Your task to perform on an android device: Go to notification settings Image 0: 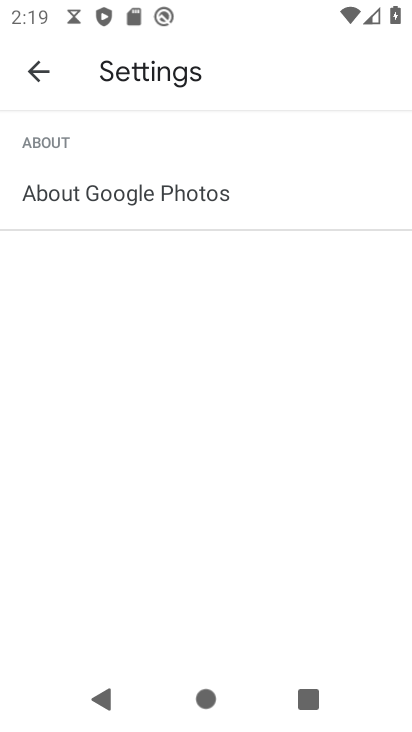
Step 0: press home button
Your task to perform on an android device: Go to notification settings Image 1: 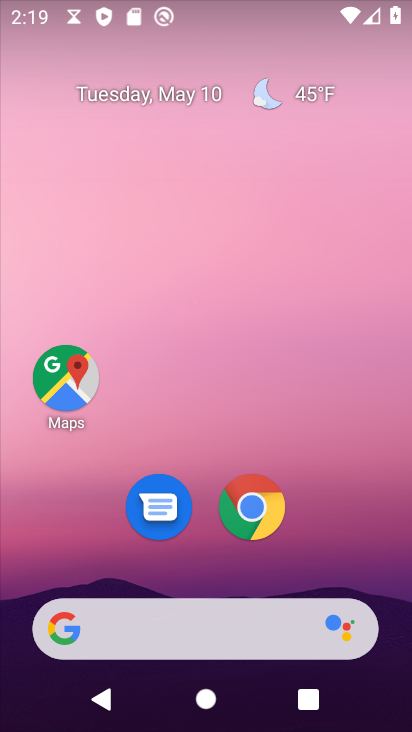
Step 1: drag from (317, 544) to (108, 179)
Your task to perform on an android device: Go to notification settings Image 2: 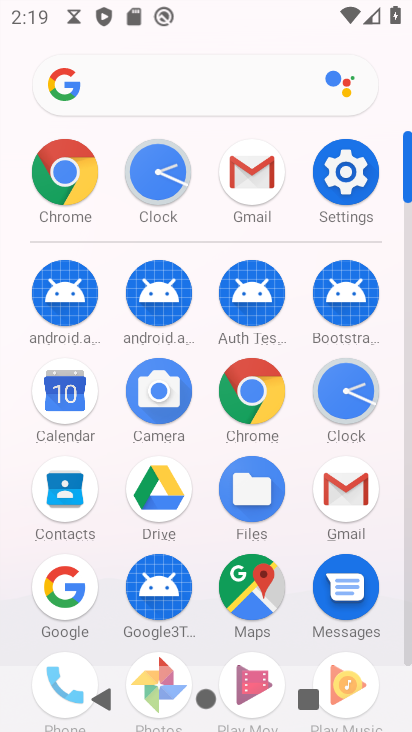
Step 2: click (342, 180)
Your task to perform on an android device: Go to notification settings Image 3: 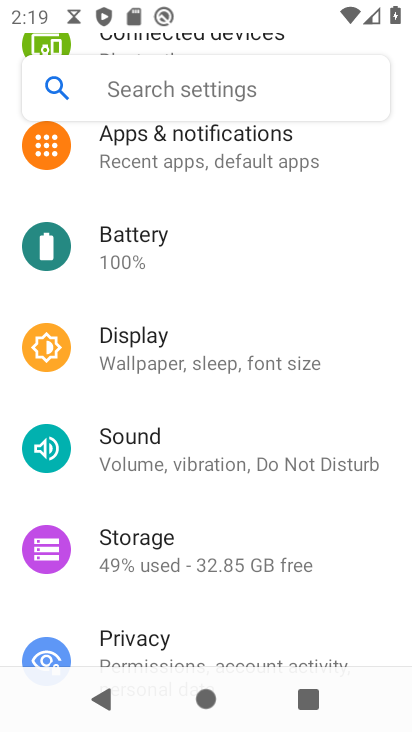
Step 3: click (170, 157)
Your task to perform on an android device: Go to notification settings Image 4: 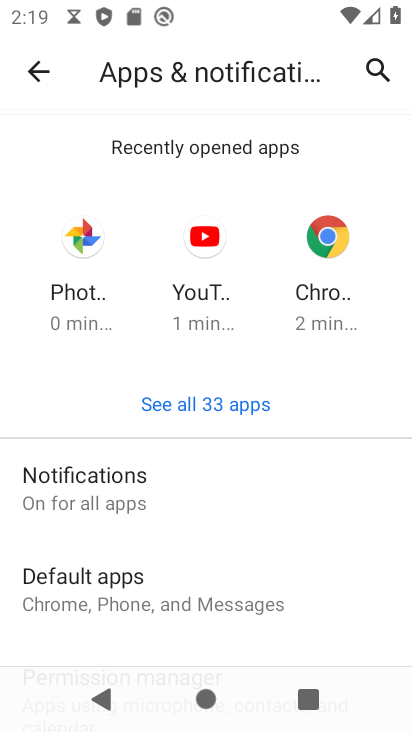
Step 4: click (116, 502)
Your task to perform on an android device: Go to notification settings Image 5: 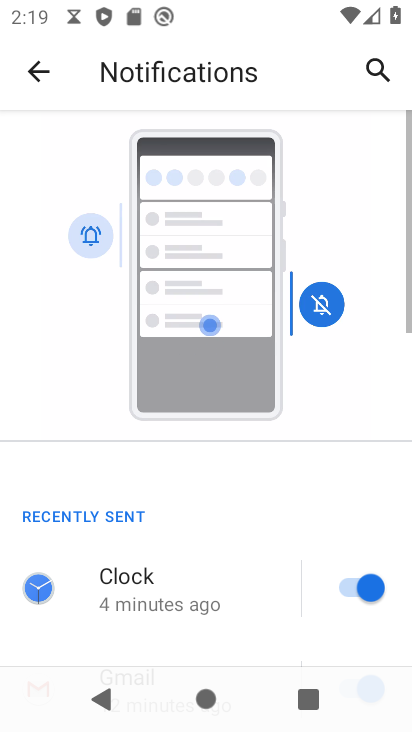
Step 5: task complete